Your task to perform on an android device: Open Yahoo.com Image 0: 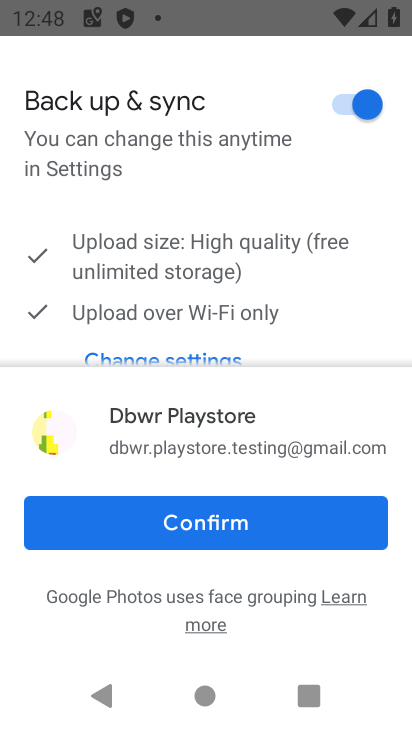
Step 0: press home button
Your task to perform on an android device: Open Yahoo.com Image 1: 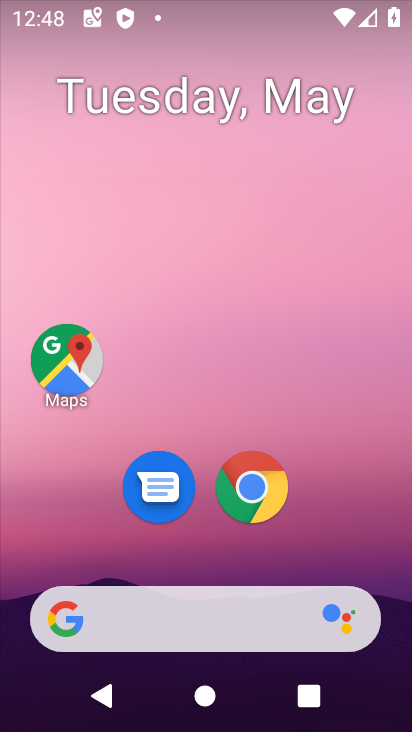
Step 1: click (247, 483)
Your task to perform on an android device: Open Yahoo.com Image 2: 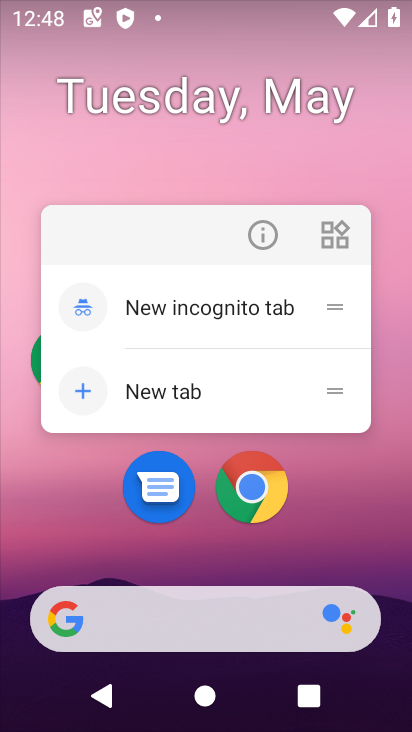
Step 2: click (246, 479)
Your task to perform on an android device: Open Yahoo.com Image 3: 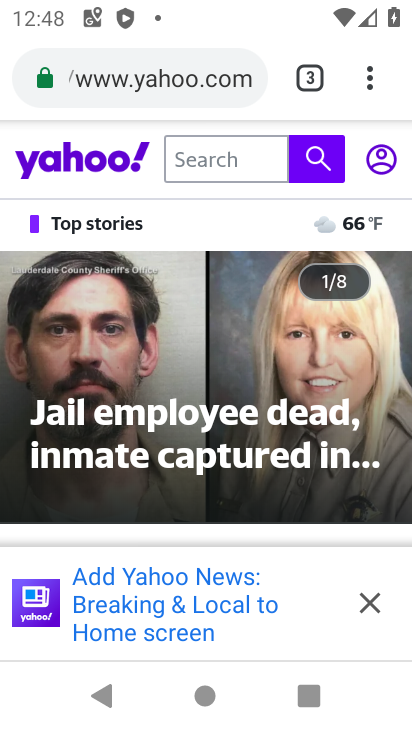
Step 3: task complete